Your task to perform on an android device: turn on the 24-hour format for clock Image 0: 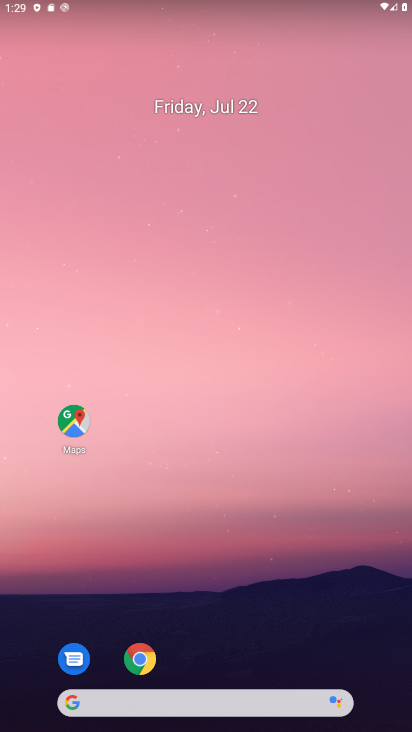
Step 0: task complete